Your task to perform on an android device: clear history in the chrome app Image 0: 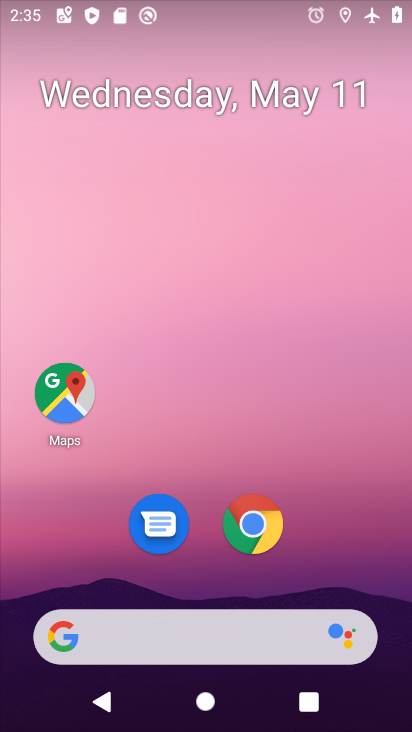
Step 0: drag from (329, 552) to (321, 55)
Your task to perform on an android device: clear history in the chrome app Image 1: 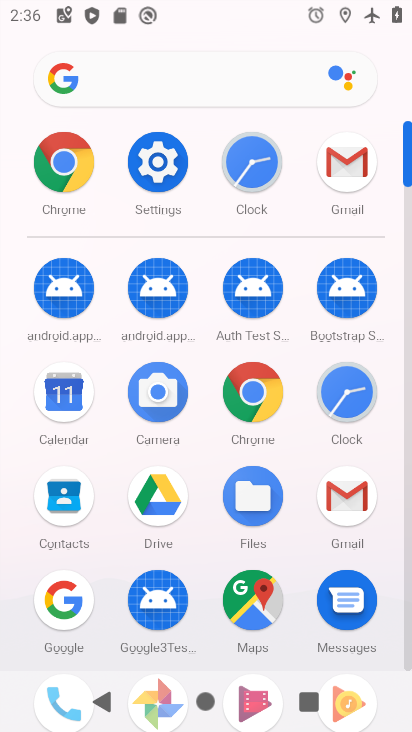
Step 1: click (62, 166)
Your task to perform on an android device: clear history in the chrome app Image 2: 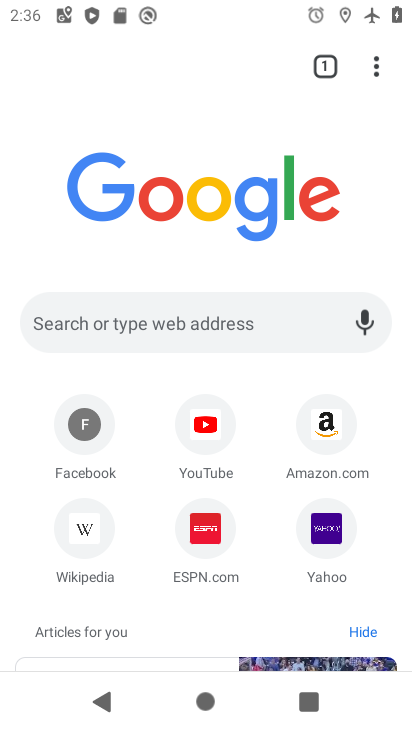
Step 2: drag from (372, 65) to (124, 374)
Your task to perform on an android device: clear history in the chrome app Image 3: 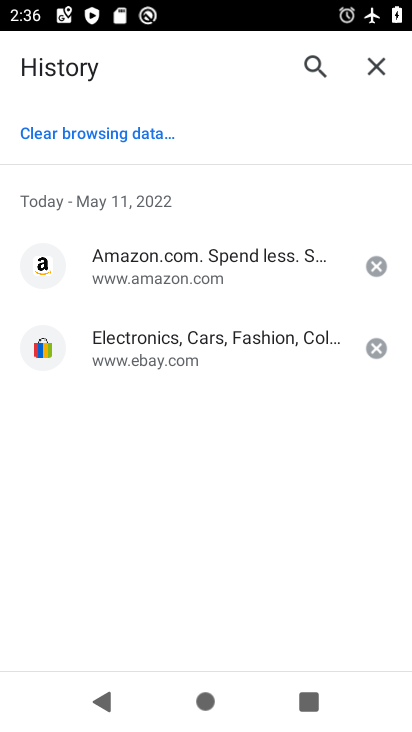
Step 3: click (134, 119)
Your task to perform on an android device: clear history in the chrome app Image 4: 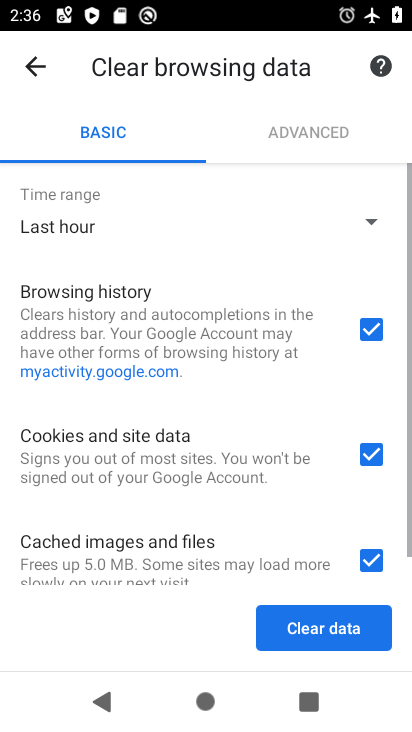
Step 4: click (341, 632)
Your task to perform on an android device: clear history in the chrome app Image 5: 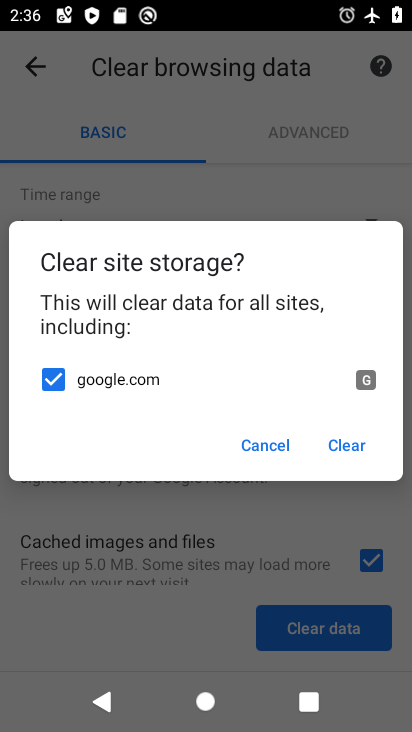
Step 5: click (356, 440)
Your task to perform on an android device: clear history in the chrome app Image 6: 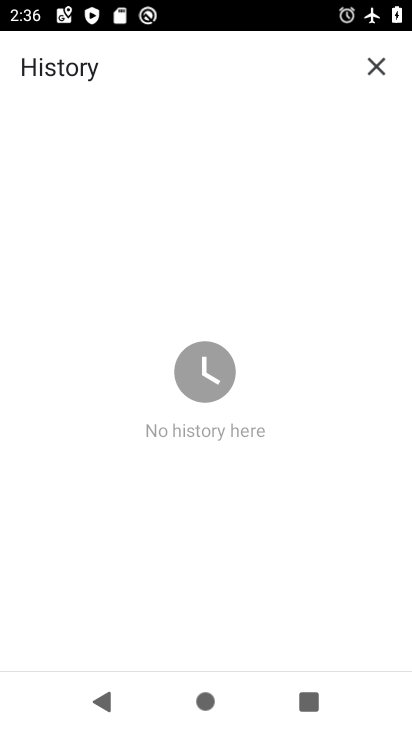
Step 6: task complete